Your task to perform on an android device: open sync settings in chrome Image 0: 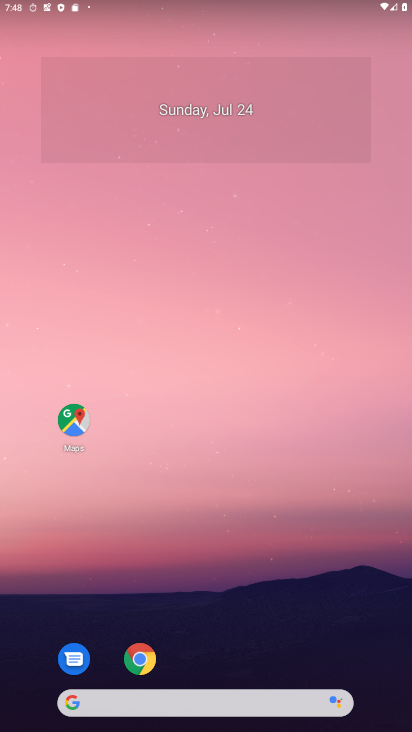
Step 0: drag from (259, 602) to (66, 36)
Your task to perform on an android device: open sync settings in chrome Image 1: 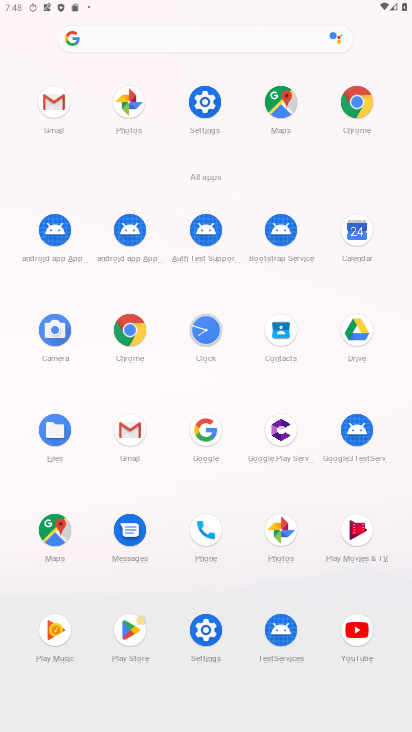
Step 1: click (357, 100)
Your task to perform on an android device: open sync settings in chrome Image 2: 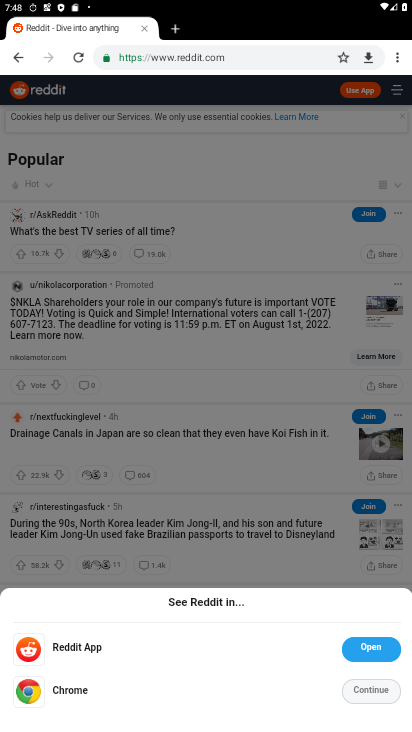
Step 2: click (396, 51)
Your task to perform on an android device: open sync settings in chrome Image 3: 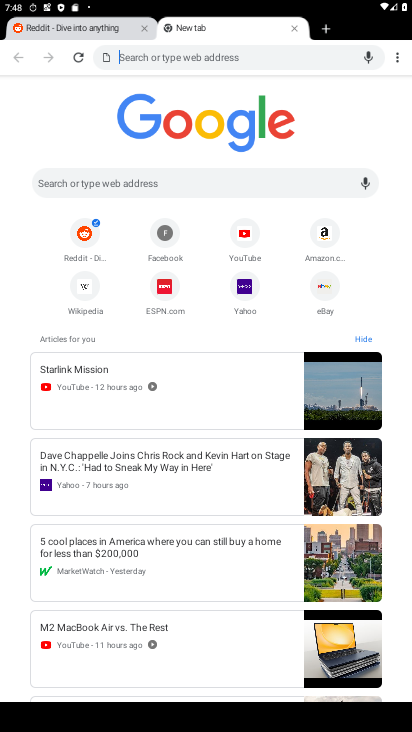
Step 3: click (295, 26)
Your task to perform on an android device: open sync settings in chrome Image 4: 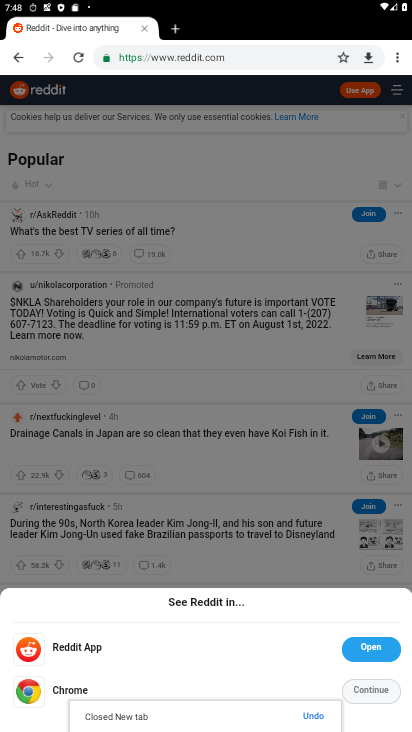
Step 4: drag from (404, 59) to (289, 381)
Your task to perform on an android device: open sync settings in chrome Image 5: 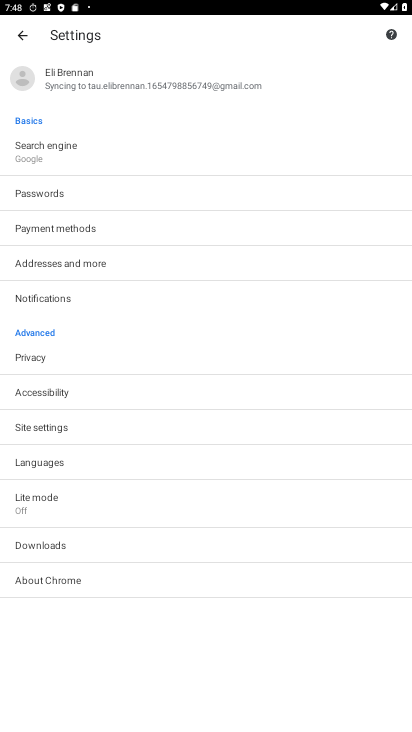
Step 5: click (68, 90)
Your task to perform on an android device: open sync settings in chrome Image 6: 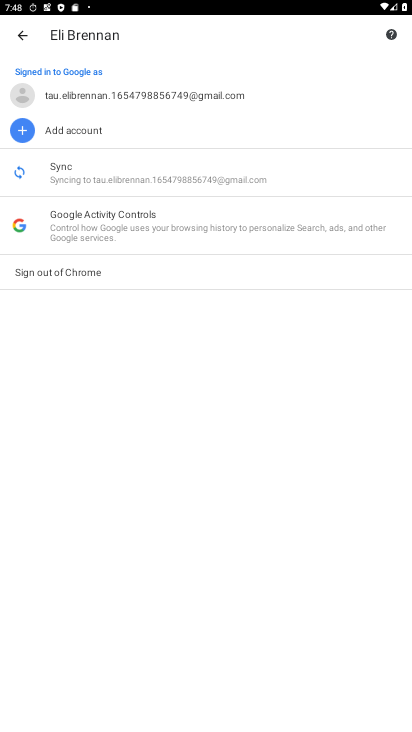
Step 6: click (95, 173)
Your task to perform on an android device: open sync settings in chrome Image 7: 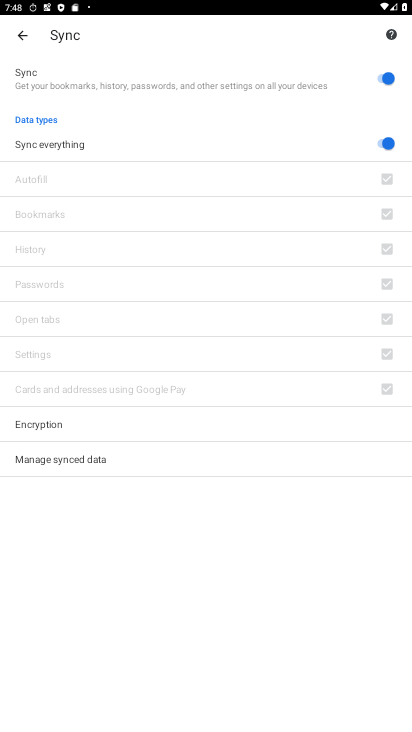
Step 7: task complete